Your task to perform on an android device: Open the map Image 0: 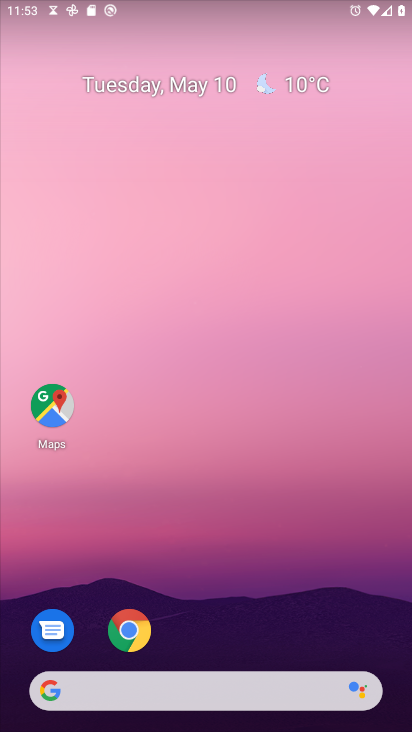
Step 0: click (52, 408)
Your task to perform on an android device: Open the map Image 1: 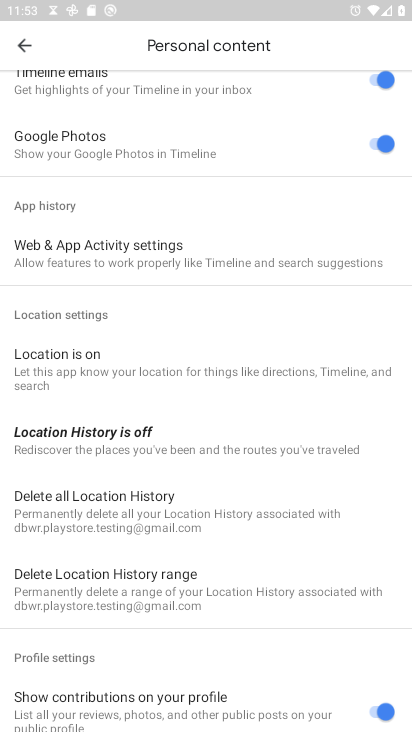
Step 1: click (28, 49)
Your task to perform on an android device: Open the map Image 2: 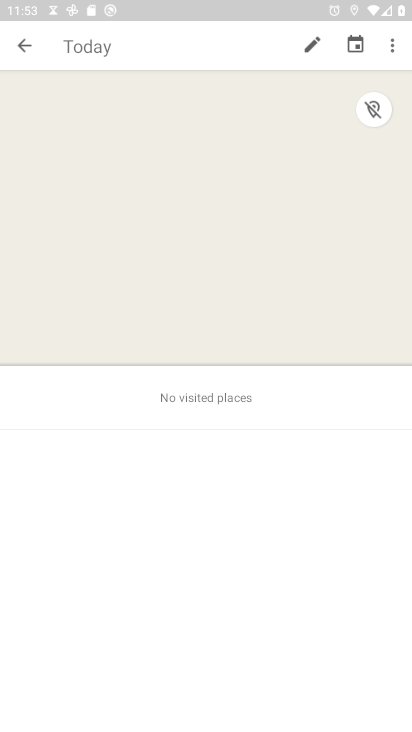
Step 2: click (28, 49)
Your task to perform on an android device: Open the map Image 3: 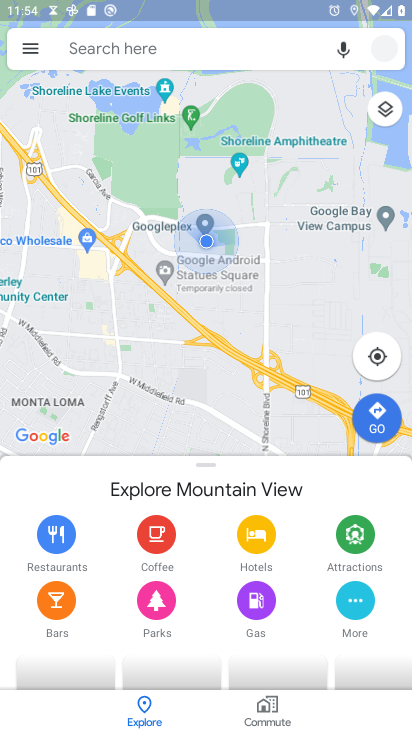
Step 3: task complete